Your task to perform on an android device: What's the weather? Image 0: 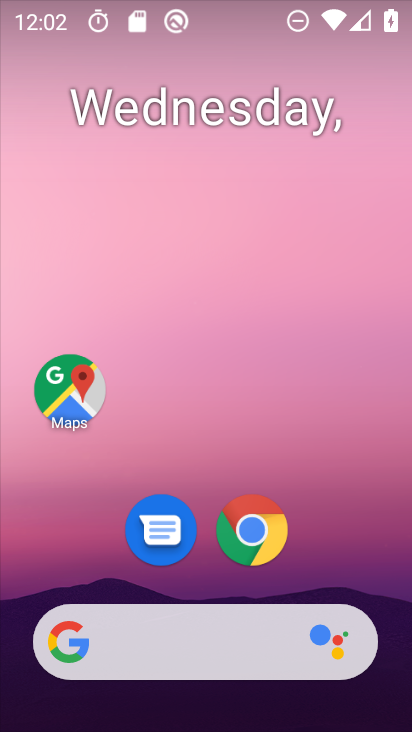
Step 0: drag from (286, 485) to (215, 77)
Your task to perform on an android device: What's the weather? Image 1: 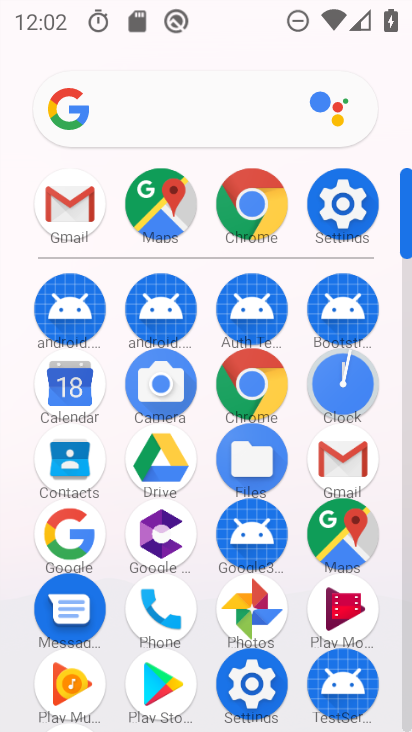
Step 1: press home button
Your task to perform on an android device: What's the weather? Image 2: 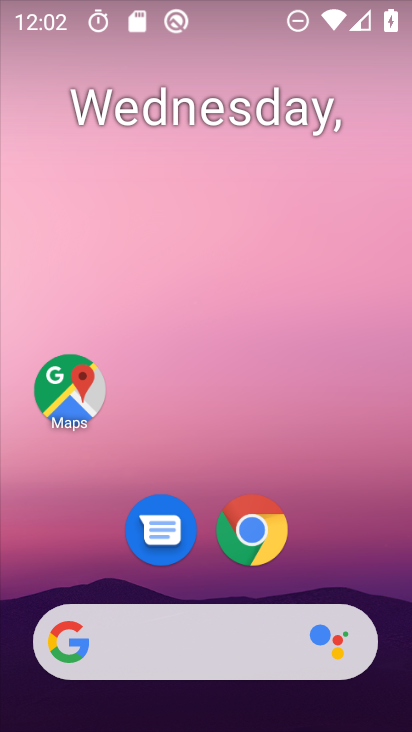
Step 2: drag from (67, 266) to (369, 256)
Your task to perform on an android device: What's the weather? Image 3: 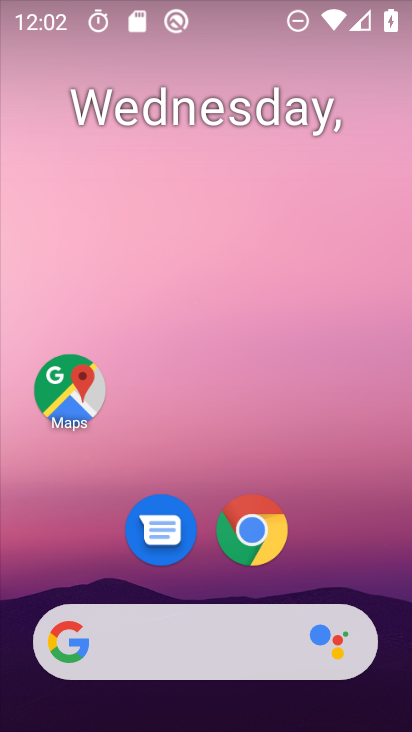
Step 3: drag from (90, 311) to (331, 300)
Your task to perform on an android device: What's the weather? Image 4: 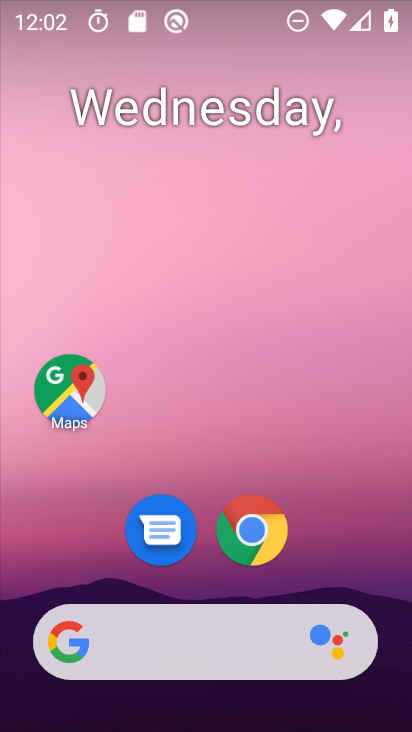
Step 4: drag from (8, 323) to (406, 299)
Your task to perform on an android device: What's the weather? Image 5: 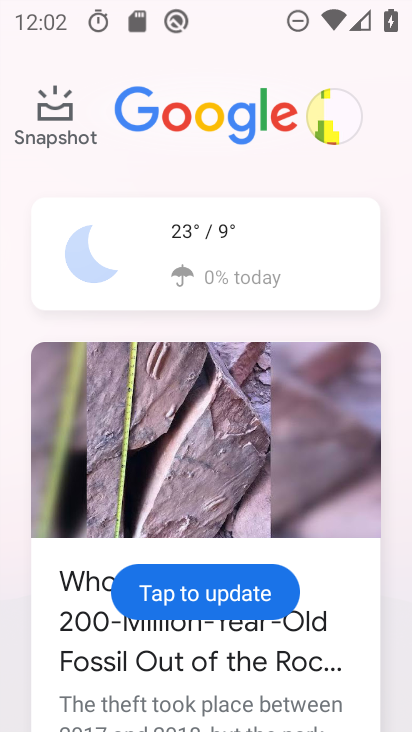
Step 5: click (272, 279)
Your task to perform on an android device: What's the weather? Image 6: 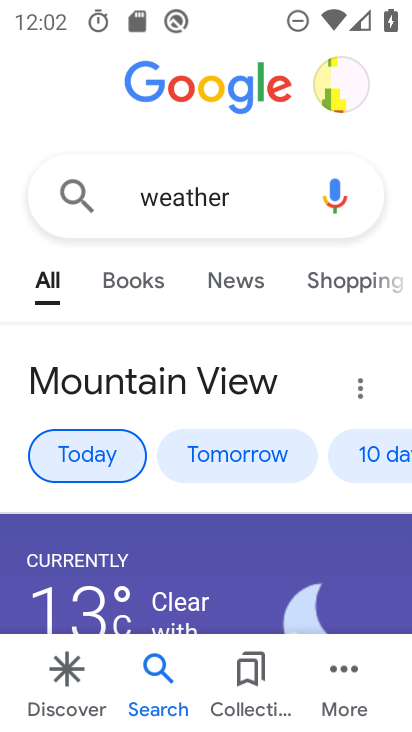
Step 6: task complete